Your task to perform on an android device: find snoozed emails in the gmail app Image 0: 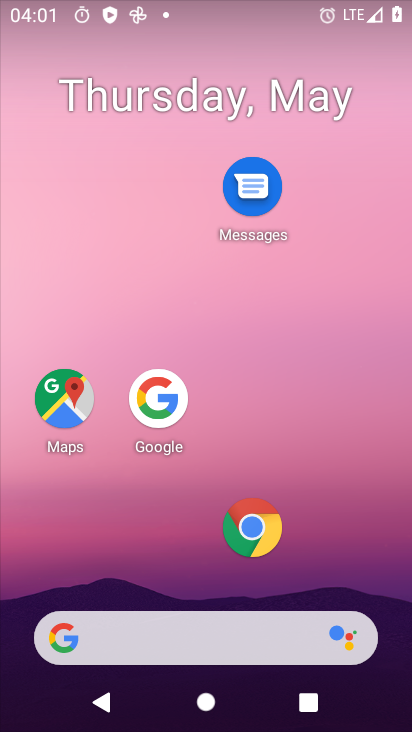
Step 0: click (266, 164)
Your task to perform on an android device: find snoozed emails in the gmail app Image 1: 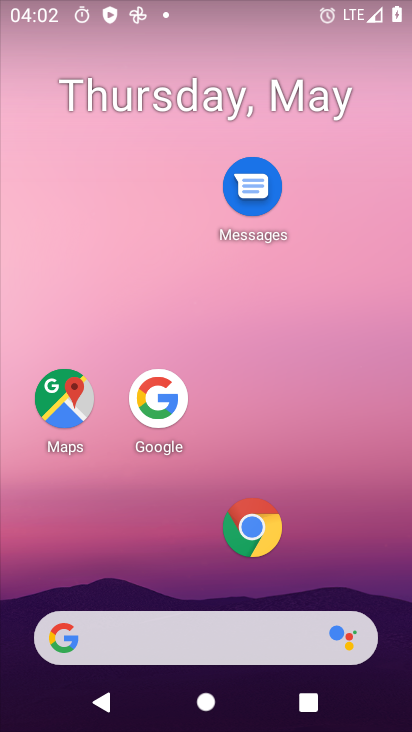
Step 1: drag from (208, 528) to (204, 173)
Your task to perform on an android device: find snoozed emails in the gmail app Image 2: 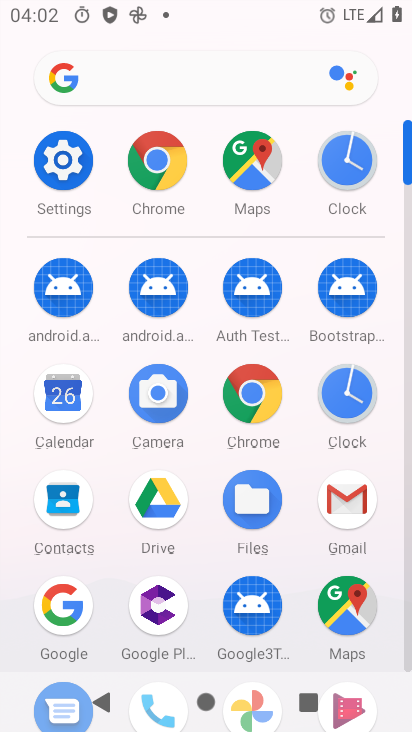
Step 2: click (344, 499)
Your task to perform on an android device: find snoozed emails in the gmail app Image 3: 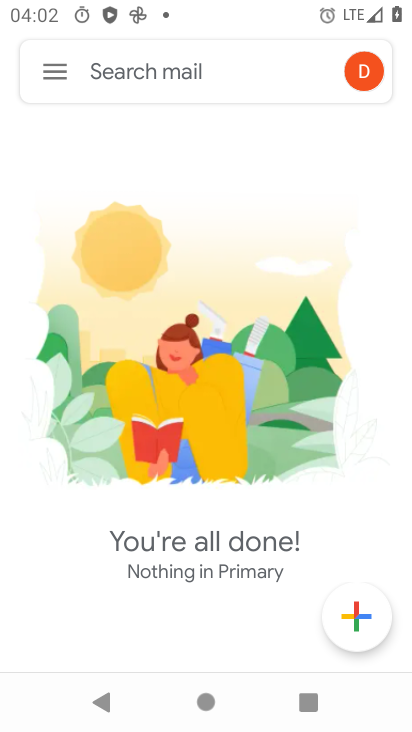
Step 3: click (50, 79)
Your task to perform on an android device: find snoozed emails in the gmail app Image 4: 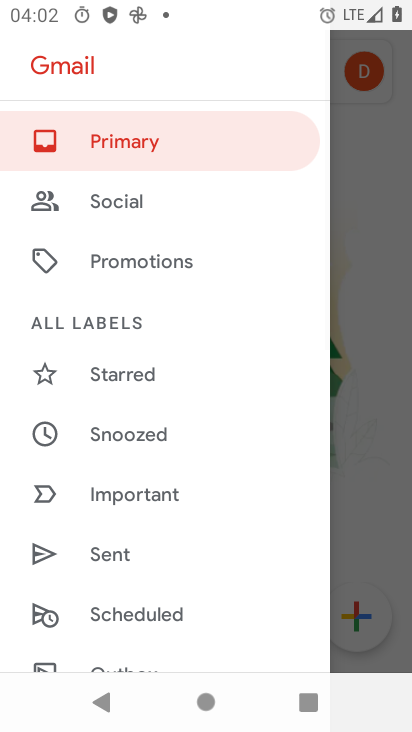
Step 4: click (148, 434)
Your task to perform on an android device: find snoozed emails in the gmail app Image 5: 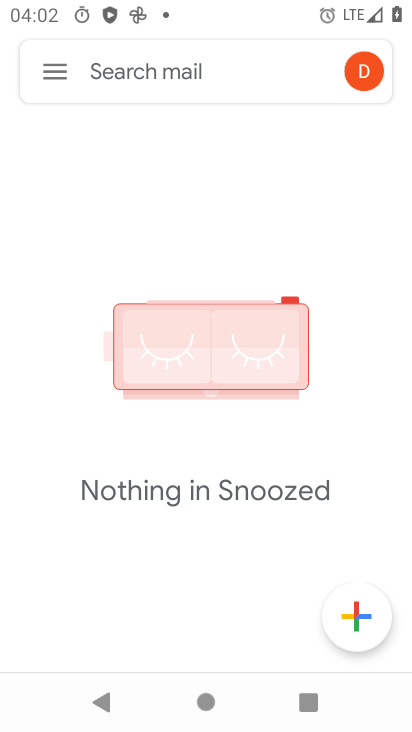
Step 5: task complete